Your task to perform on an android device: Open the stopwatch Image 0: 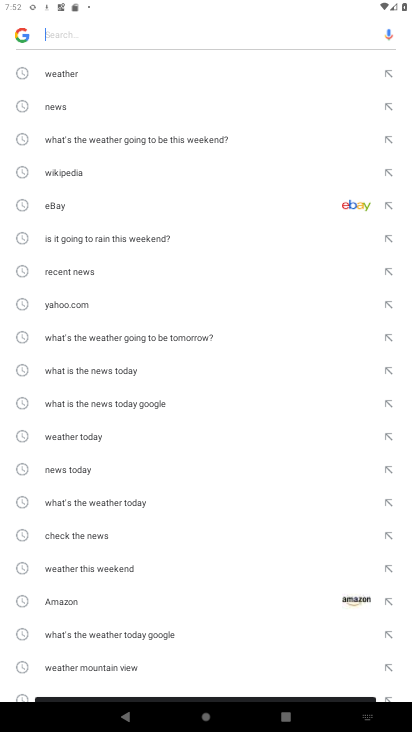
Step 0: press home button
Your task to perform on an android device: Open the stopwatch Image 1: 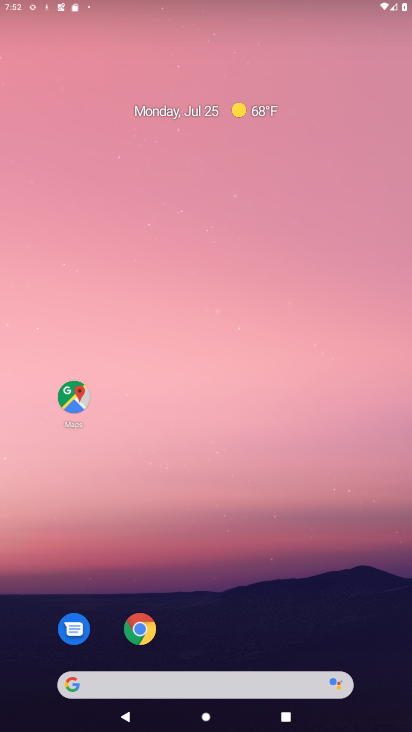
Step 1: drag from (264, 505) to (277, 146)
Your task to perform on an android device: Open the stopwatch Image 2: 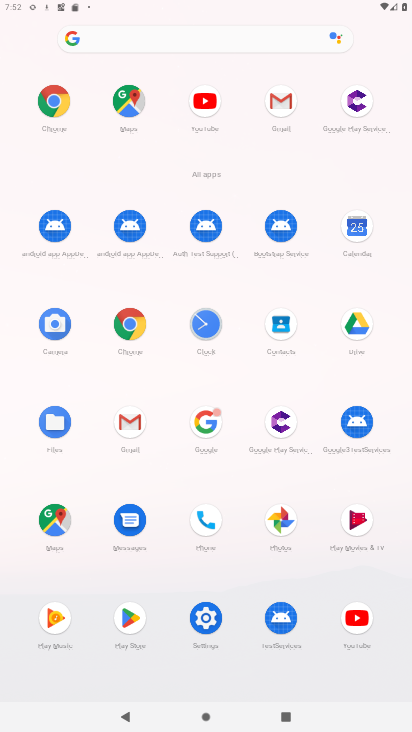
Step 2: click (195, 328)
Your task to perform on an android device: Open the stopwatch Image 3: 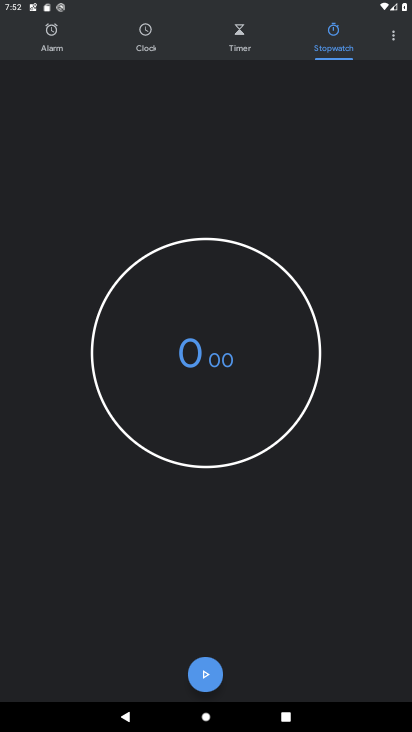
Step 3: task complete